Your task to perform on an android device: open app "ColorNote Notepad Notes" Image 0: 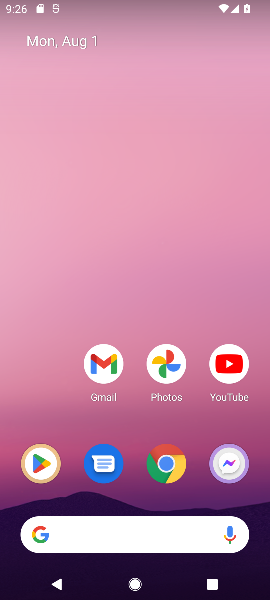
Step 0: click (30, 468)
Your task to perform on an android device: open app "ColorNote Notepad Notes" Image 1: 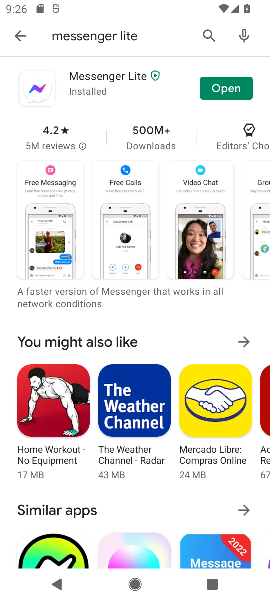
Step 1: click (212, 36)
Your task to perform on an android device: open app "ColorNote Notepad Notes" Image 2: 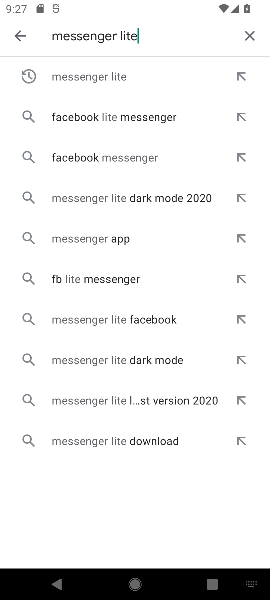
Step 2: click (253, 30)
Your task to perform on an android device: open app "ColorNote Notepad Notes" Image 3: 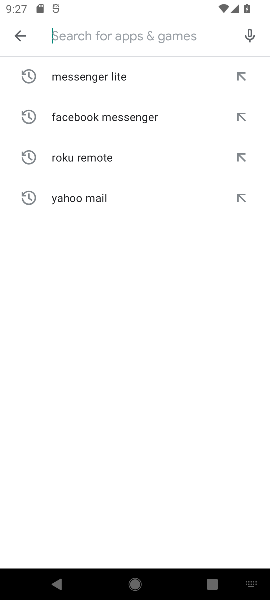
Step 3: type "ColorNote Notepad Notes"
Your task to perform on an android device: open app "ColorNote Notepad Notes" Image 4: 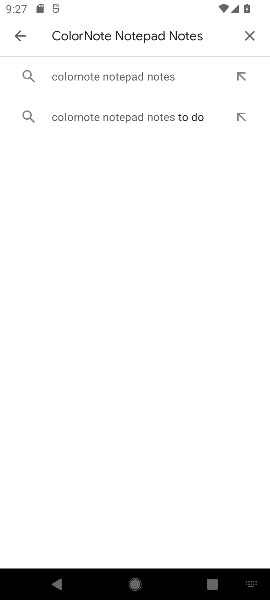
Step 4: click (147, 76)
Your task to perform on an android device: open app "ColorNote Notepad Notes" Image 5: 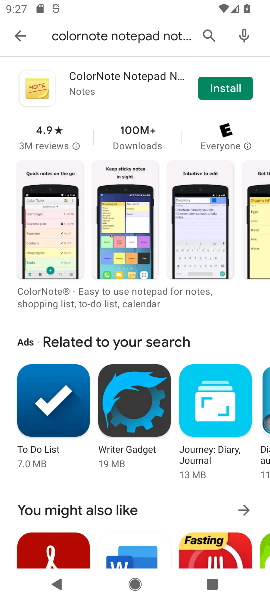
Step 5: task complete